Your task to perform on an android device: empty trash in the gmail app Image 0: 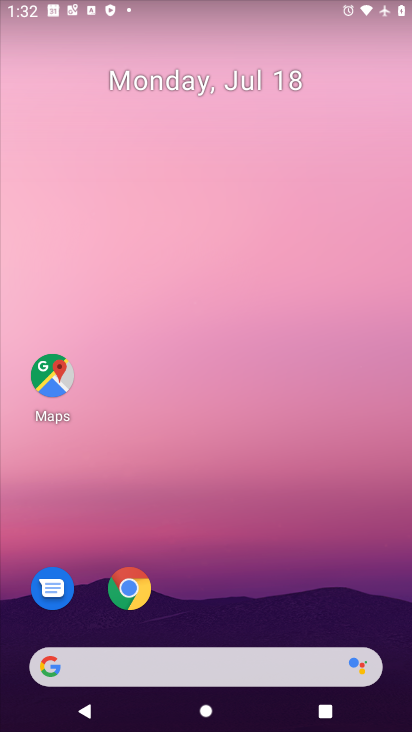
Step 0: drag from (248, 640) to (236, 271)
Your task to perform on an android device: empty trash in the gmail app Image 1: 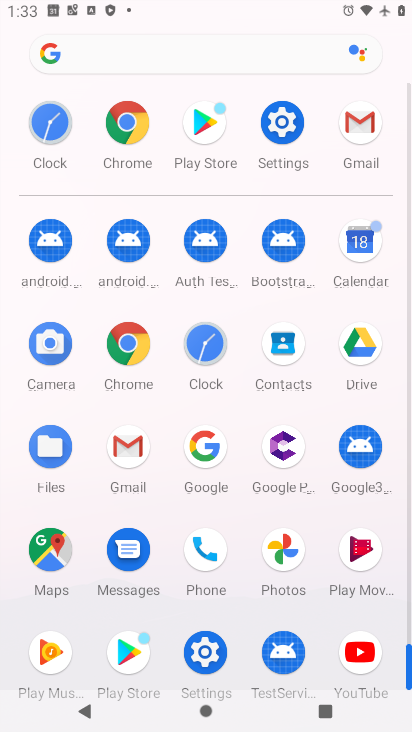
Step 1: click (361, 145)
Your task to perform on an android device: empty trash in the gmail app Image 2: 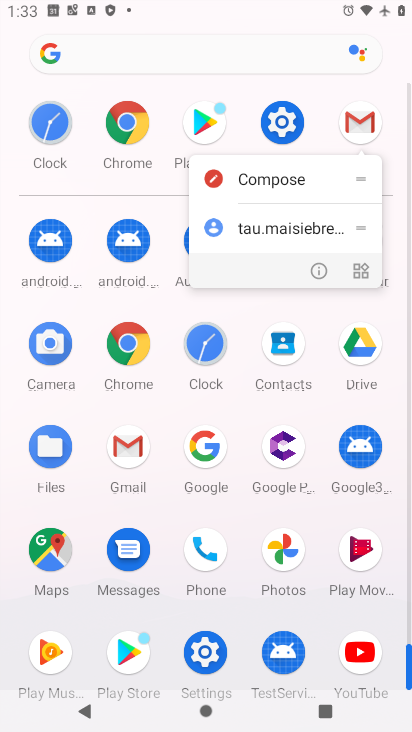
Step 2: click (128, 465)
Your task to perform on an android device: empty trash in the gmail app Image 3: 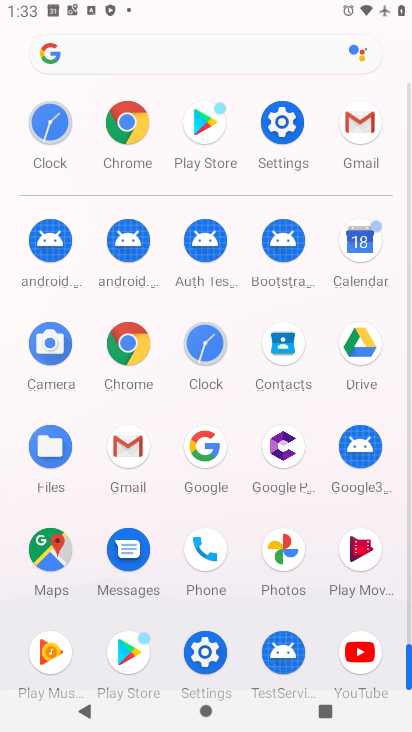
Step 3: click (364, 158)
Your task to perform on an android device: empty trash in the gmail app Image 4: 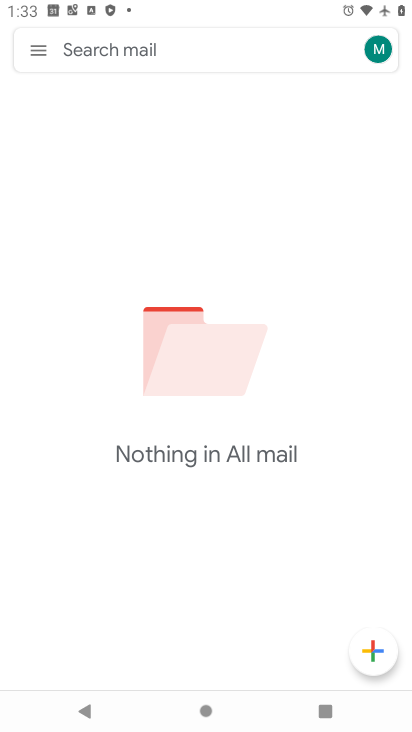
Step 4: click (37, 54)
Your task to perform on an android device: empty trash in the gmail app Image 5: 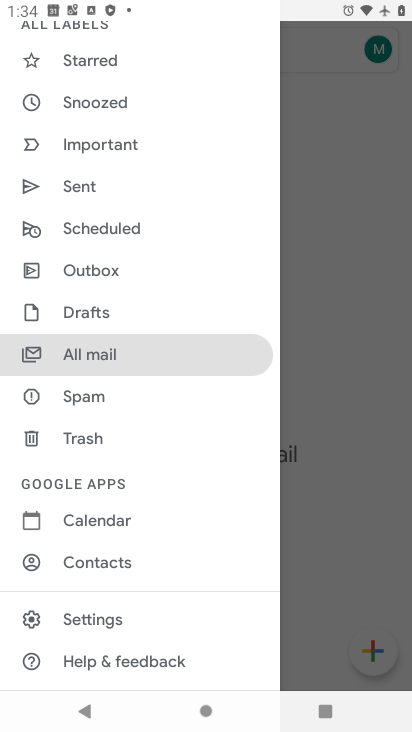
Step 5: click (117, 439)
Your task to perform on an android device: empty trash in the gmail app Image 6: 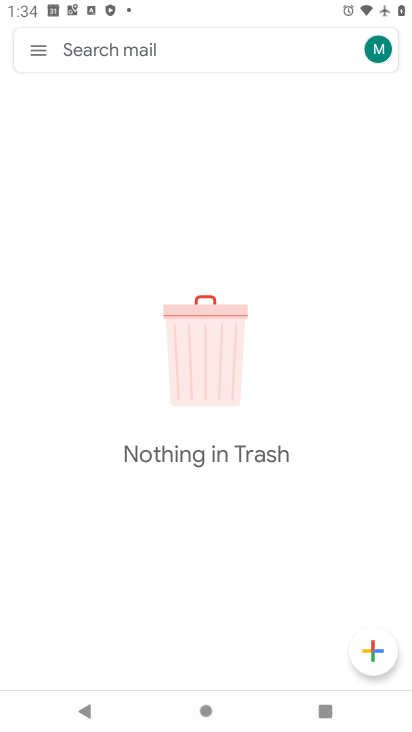
Step 6: task complete